Your task to perform on an android device: toggle translation in the chrome app Image 0: 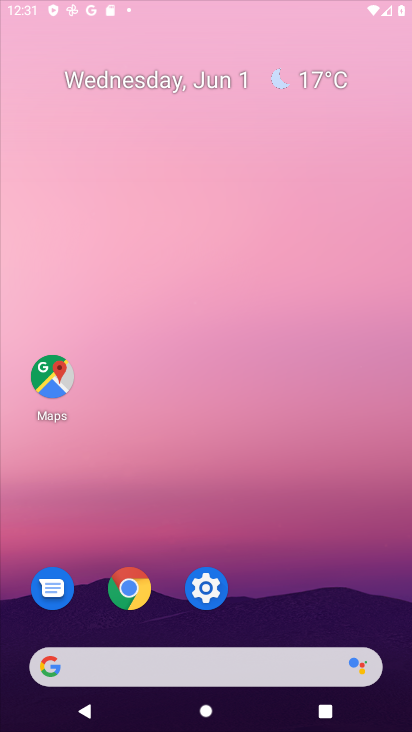
Step 0: press home button
Your task to perform on an android device: toggle translation in the chrome app Image 1: 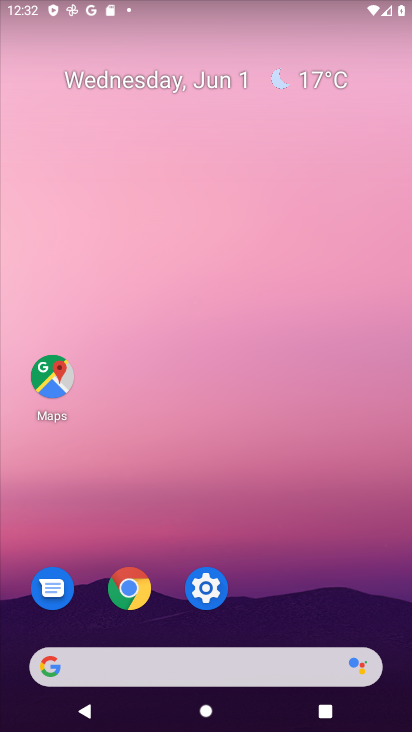
Step 1: click (129, 597)
Your task to perform on an android device: toggle translation in the chrome app Image 2: 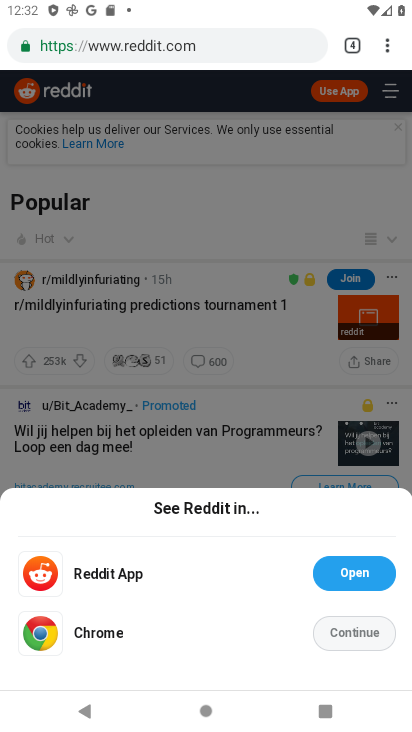
Step 2: click (388, 41)
Your task to perform on an android device: toggle translation in the chrome app Image 3: 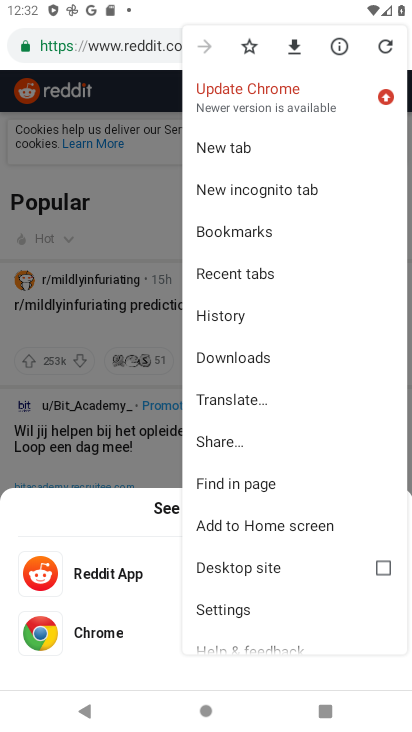
Step 3: click (223, 594)
Your task to perform on an android device: toggle translation in the chrome app Image 4: 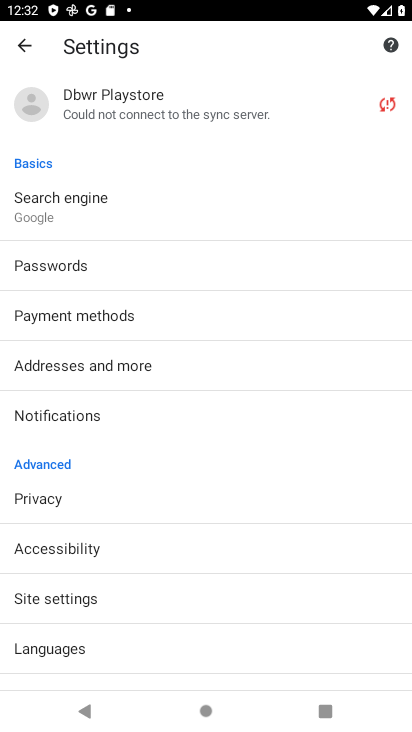
Step 4: click (66, 646)
Your task to perform on an android device: toggle translation in the chrome app Image 5: 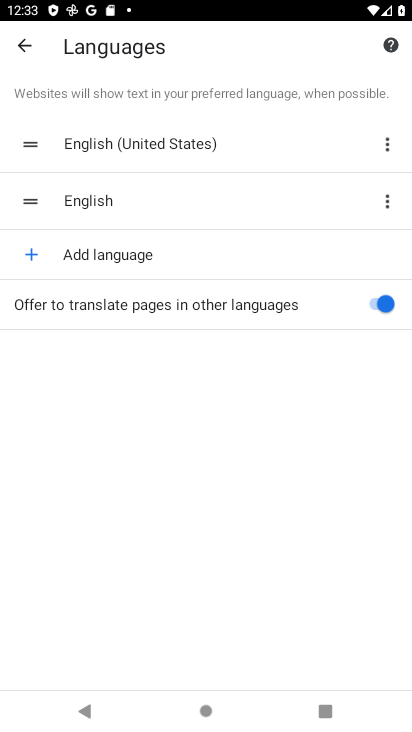
Step 5: task complete